Your task to perform on an android device: Go to eBay Image 0: 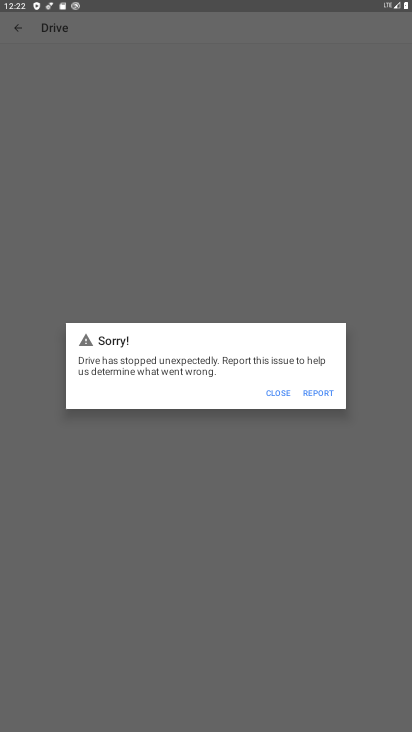
Step 0: press home button
Your task to perform on an android device: Go to eBay Image 1: 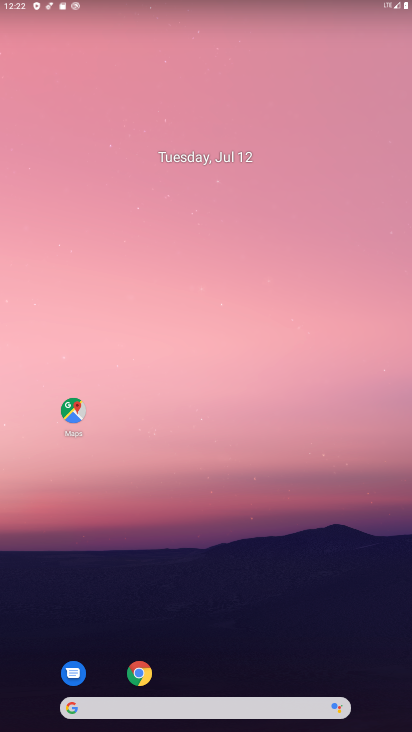
Step 1: drag from (247, 648) to (229, 9)
Your task to perform on an android device: Go to eBay Image 2: 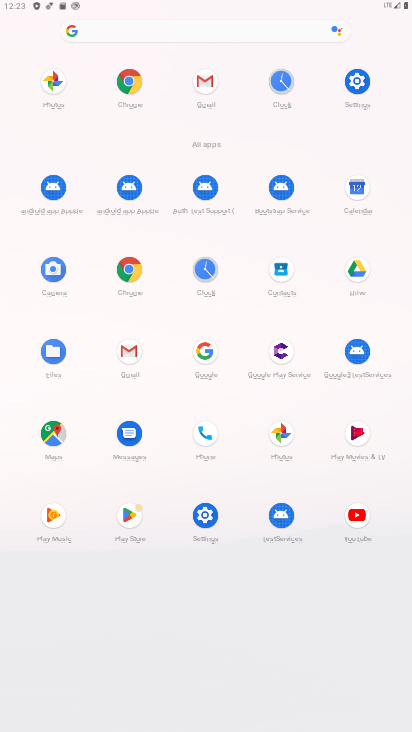
Step 2: click (122, 81)
Your task to perform on an android device: Go to eBay Image 3: 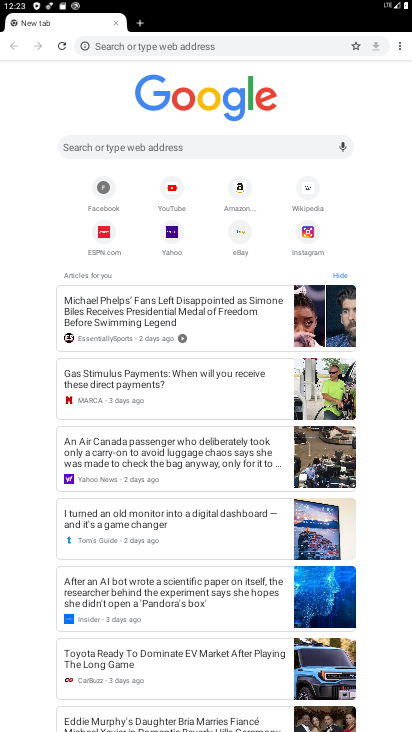
Step 3: click (201, 147)
Your task to perform on an android device: Go to eBay Image 4: 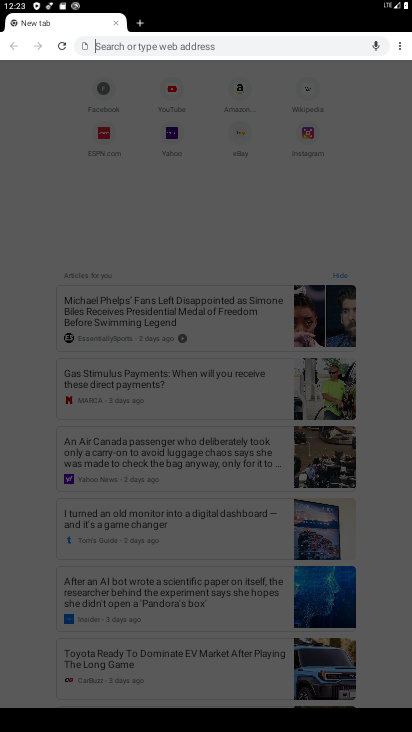
Step 4: type "eBays"
Your task to perform on an android device: Go to eBay Image 5: 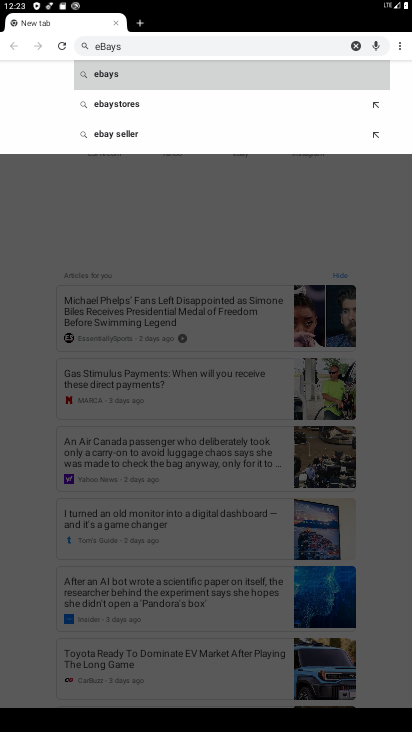
Step 5: click (160, 48)
Your task to perform on an android device: Go to eBay Image 6: 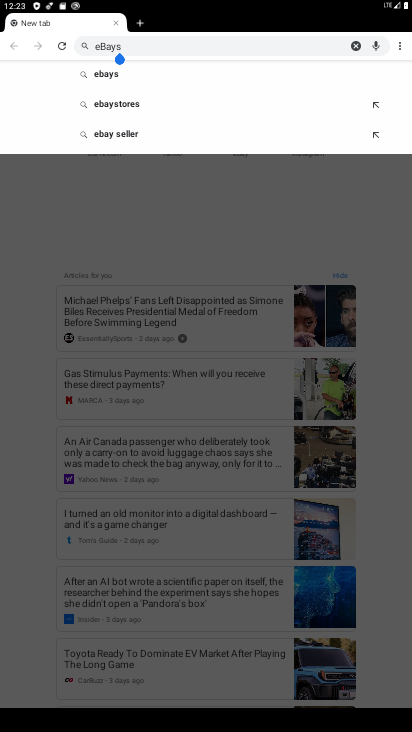
Step 6: click (102, 43)
Your task to perform on an android device: Go to eBay Image 7: 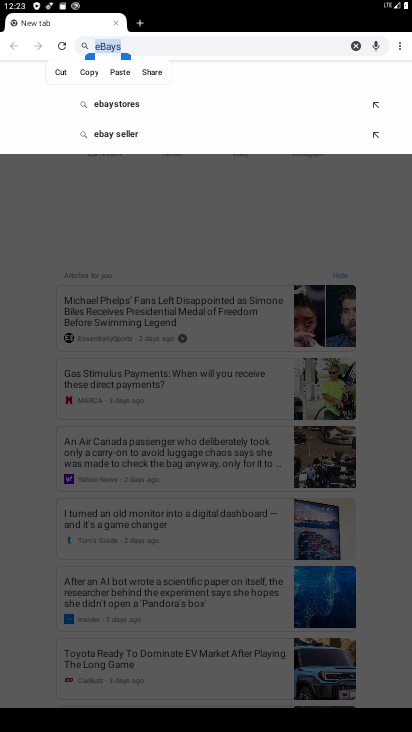
Step 7: type "ebay"
Your task to perform on an android device: Go to eBay Image 8: 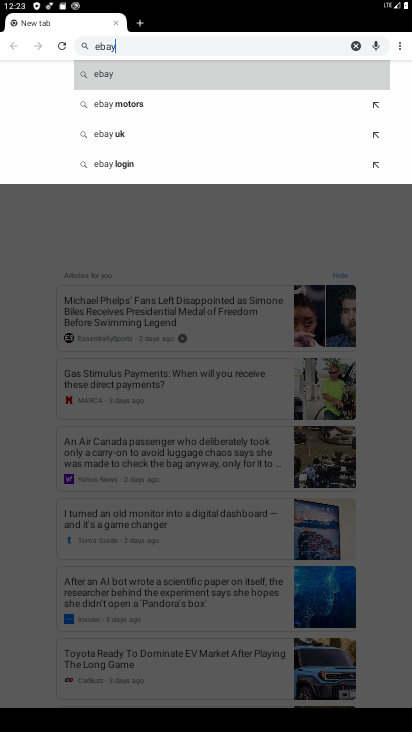
Step 8: click (148, 81)
Your task to perform on an android device: Go to eBay Image 9: 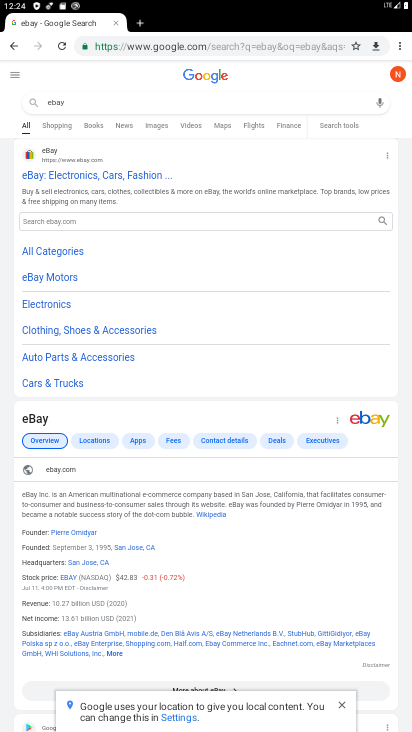
Step 9: click (119, 176)
Your task to perform on an android device: Go to eBay Image 10: 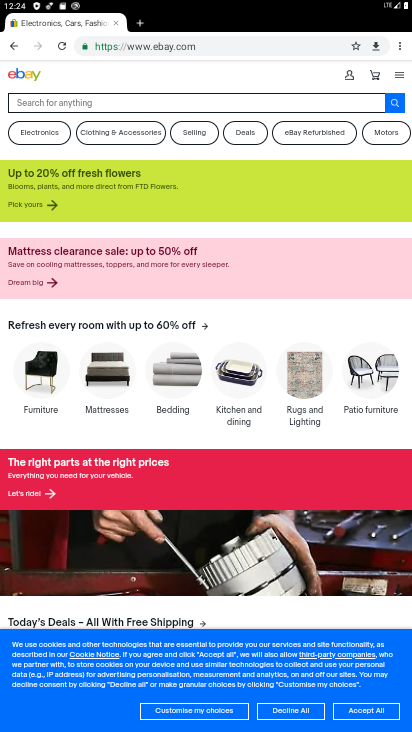
Step 10: task complete